Your task to perform on an android device: snooze an email in the gmail app Image 0: 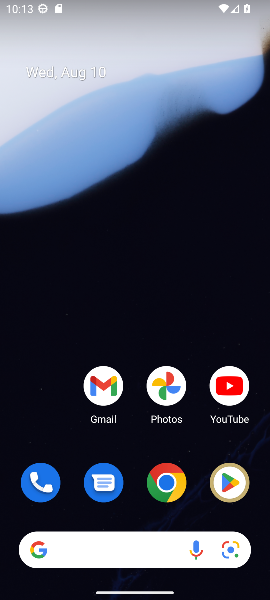
Step 0: drag from (137, 335) to (126, 63)
Your task to perform on an android device: snooze an email in the gmail app Image 1: 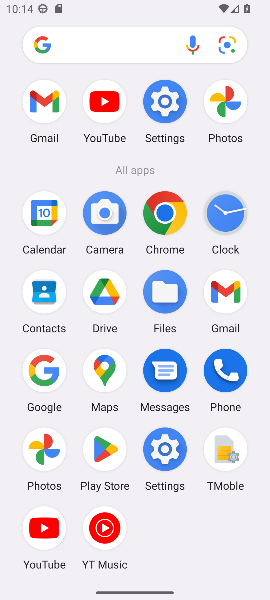
Step 1: task complete